Your task to perform on an android device: delete the emails in spam in the gmail app Image 0: 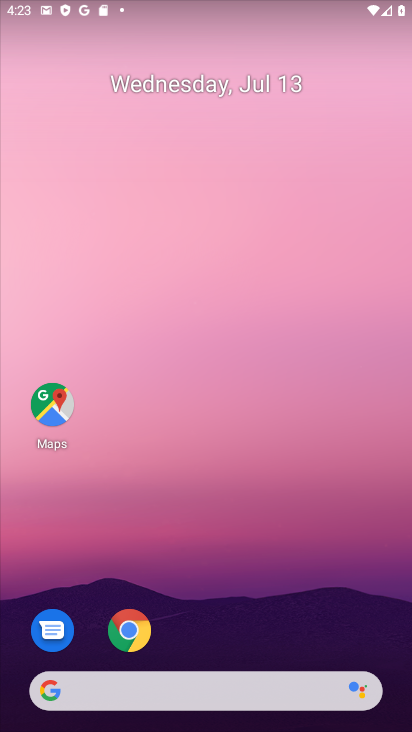
Step 0: drag from (232, 521) to (211, 205)
Your task to perform on an android device: delete the emails in spam in the gmail app Image 1: 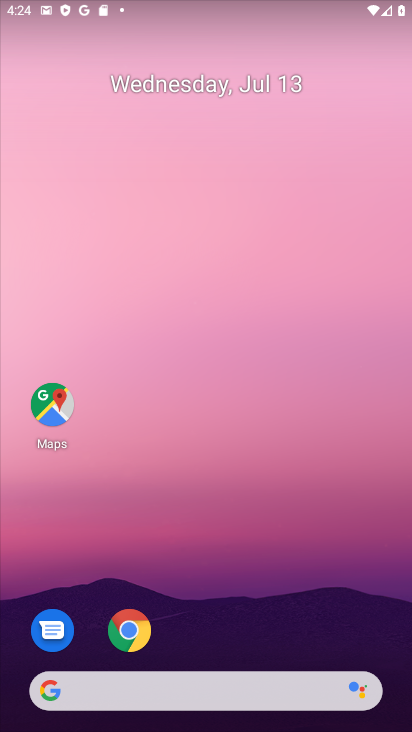
Step 1: drag from (255, 614) to (259, 19)
Your task to perform on an android device: delete the emails in spam in the gmail app Image 2: 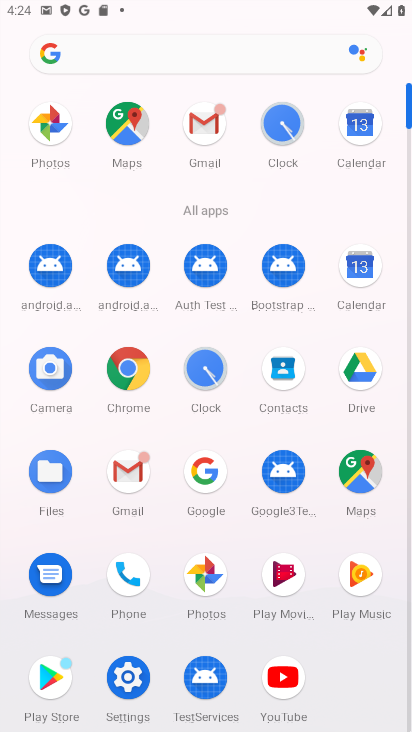
Step 2: click (199, 121)
Your task to perform on an android device: delete the emails in spam in the gmail app Image 3: 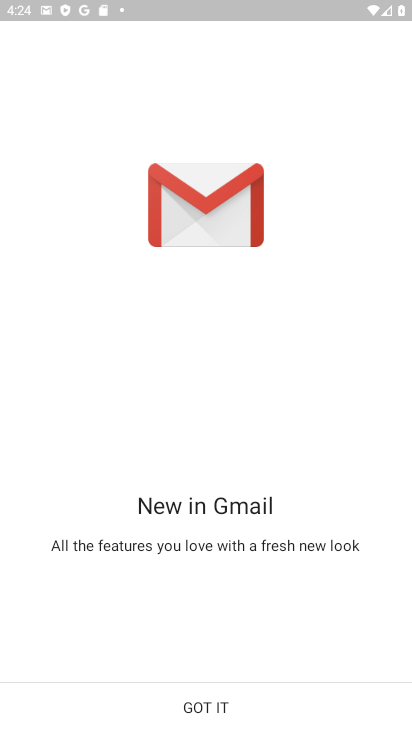
Step 3: click (262, 695)
Your task to perform on an android device: delete the emails in spam in the gmail app Image 4: 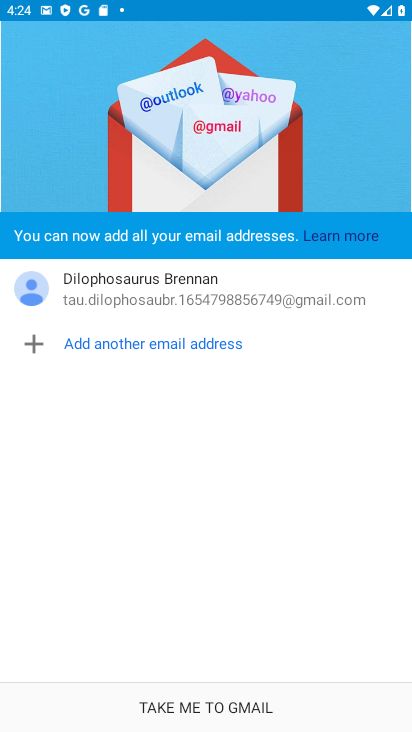
Step 4: click (260, 711)
Your task to perform on an android device: delete the emails in spam in the gmail app Image 5: 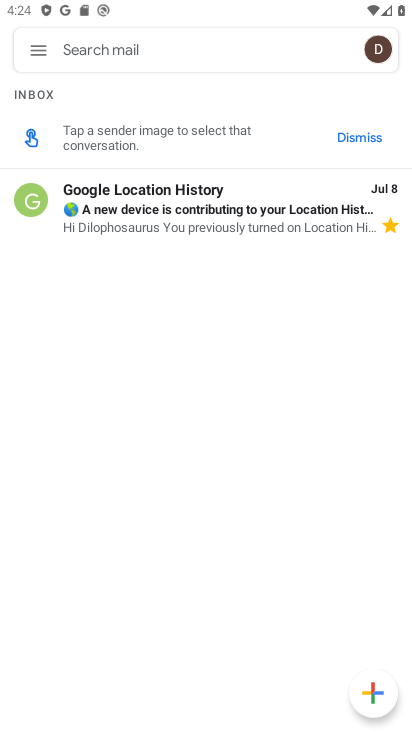
Step 5: click (42, 36)
Your task to perform on an android device: delete the emails in spam in the gmail app Image 6: 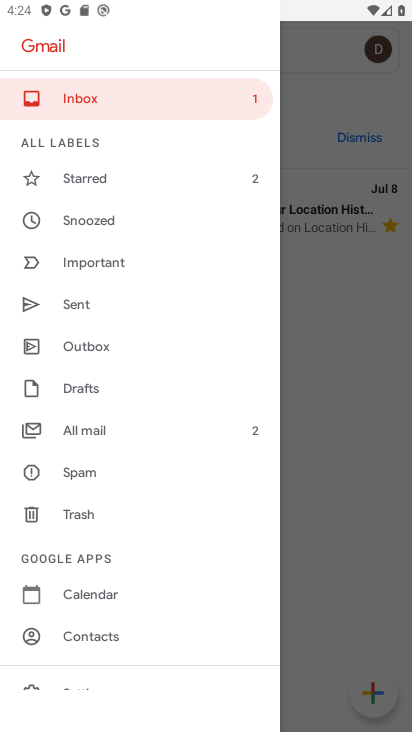
Step 6: click (67, 463)
Your task to perform on an android device: delete the emails in spam in the gmail app Image 7: 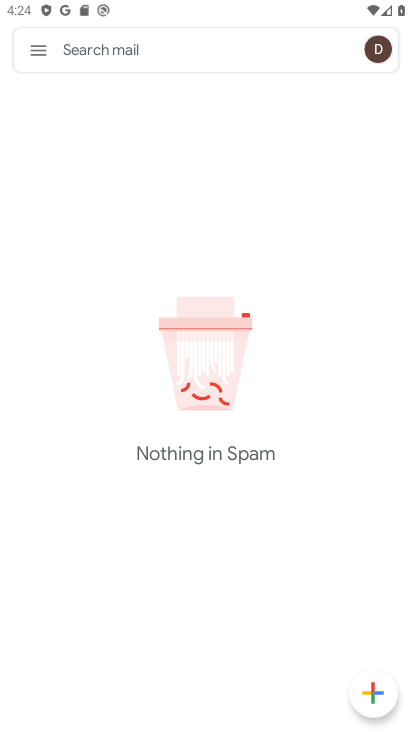
Step 7: task complete